Your task to perform on an android device: turn on javascript in the chrome app Image 0: 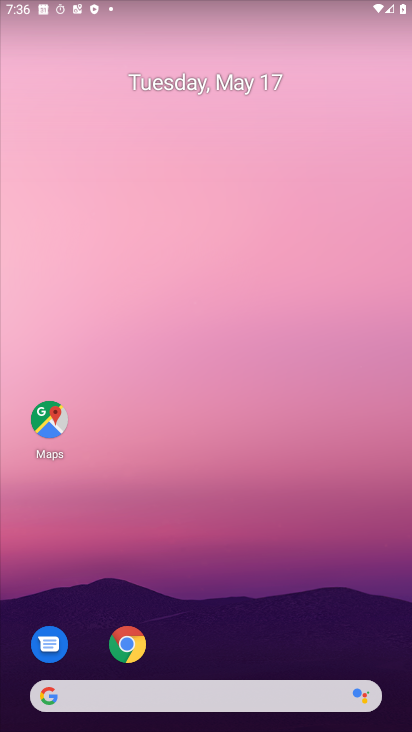
Step 0: drag from (296, 637) to (212, 93)
Your task to perform on an android device: turn on javascript in the chrome app Image 1: 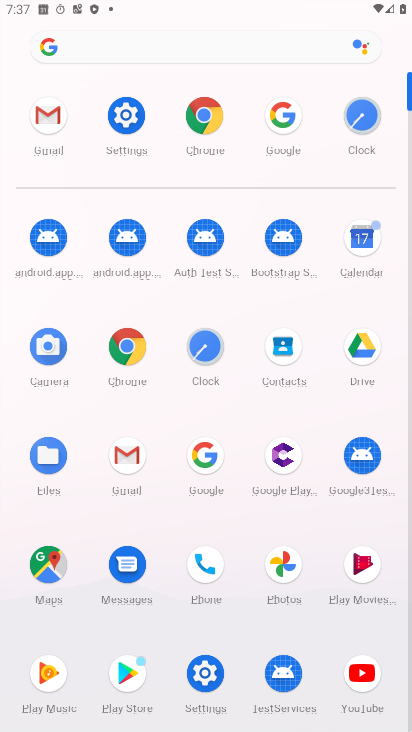
Step 1: click (203, 118)
Your task to perform on an android device: turn on javascript in the chrome app Image 2: 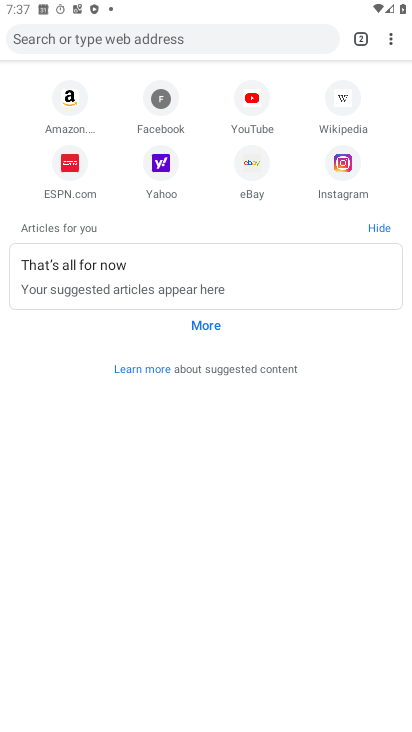
Step 2: click (392, 35)
Your task to perform on an android device: turn on javascript in the chrome app Image 3: 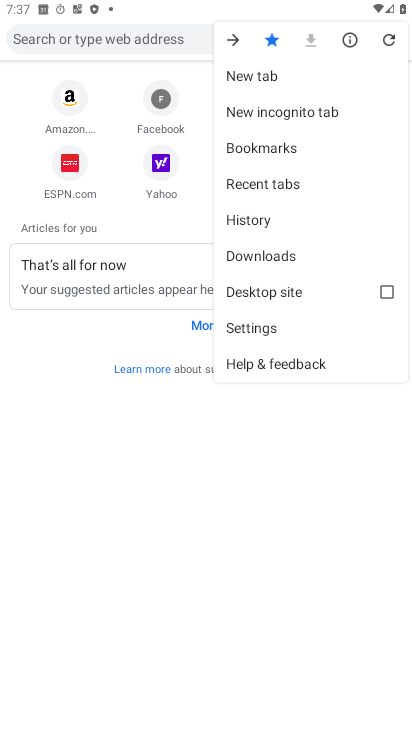
Step 3: click (278, 339)
Your task to perform on an android device: turn on javascript in the chrome app Image 4: 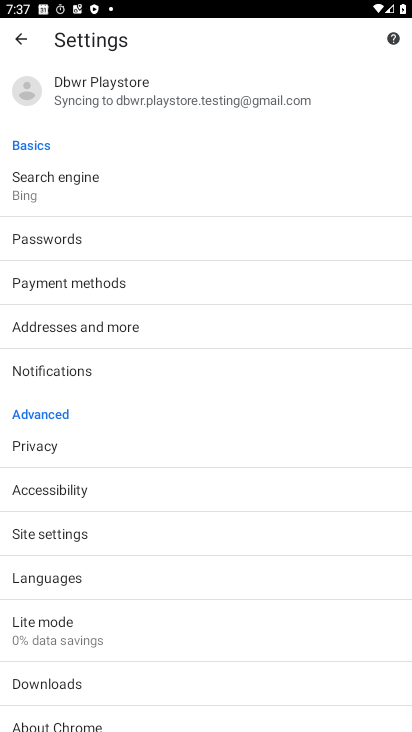
Step 4: click (96, 532)
Your task to perform on an android device: turn on javascript in the chrome app Image 5: 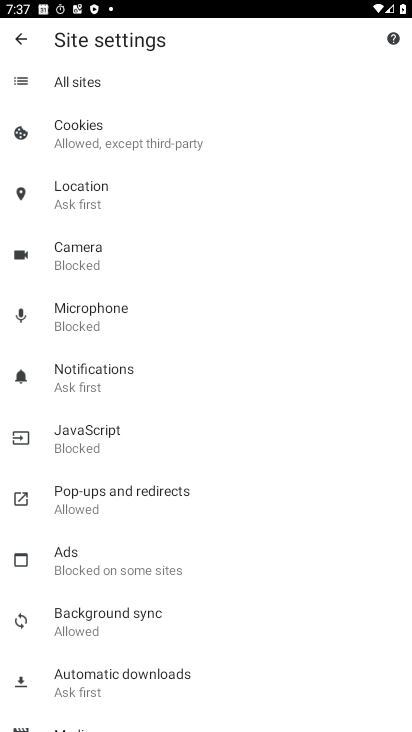
Step 5: click (138, 442)
Your task to perform on an android device: turn on javascript in the chrome app Image 6: 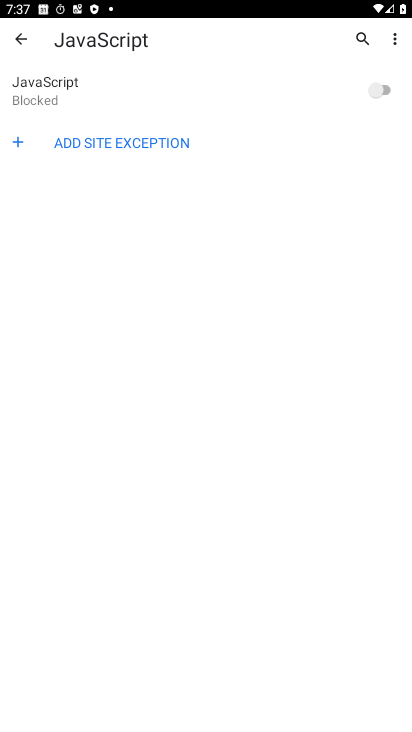
Step 6: click (382, 98)
Your task to perform on an android device: turn on javascript in the chrome app Image 7: 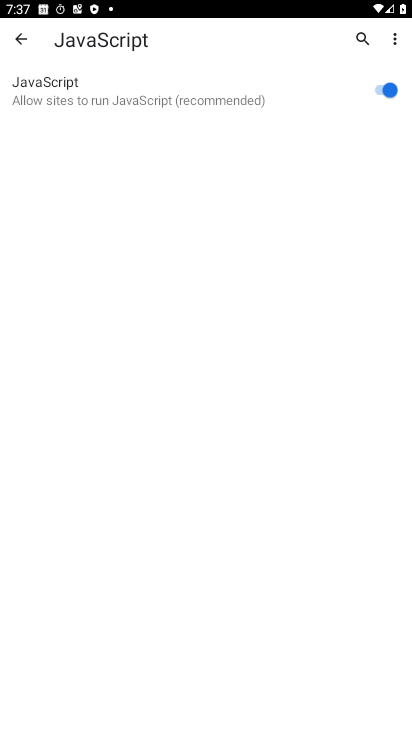
Step 7: task complete